Your task to perform on an android device: toggle location history Image 0: 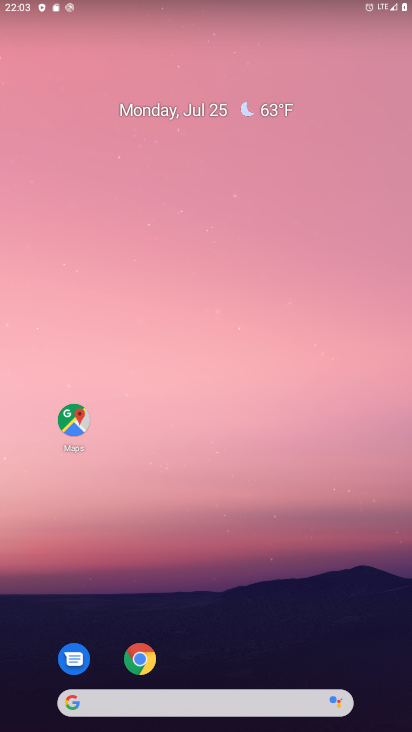
Step 0: drag from (215, 675) to (212, 138)
Your task to perform on an android device: toggle location history Image 1: 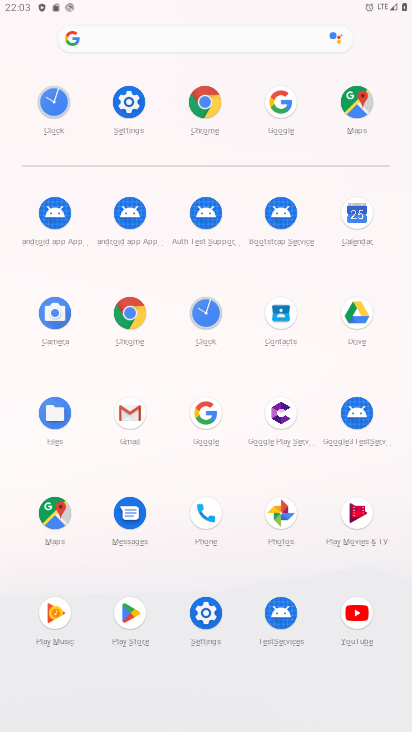
Step 1: click (130, 101)
Your task to perform on an android device: toggle location history Image 2: 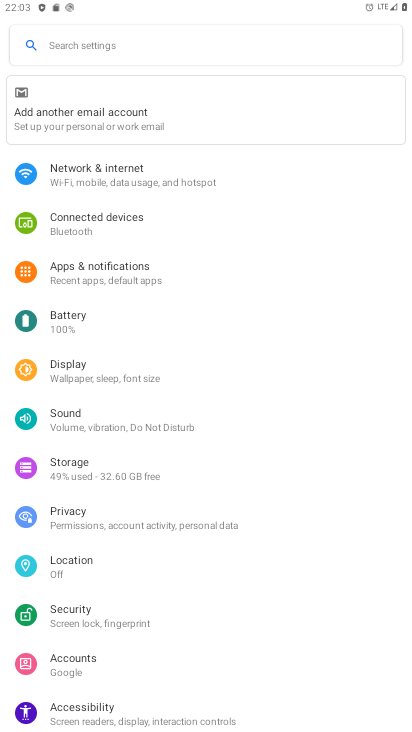
Step 2: click (77, 563)
Your task to perform on an android device: toggle location history Image 3: 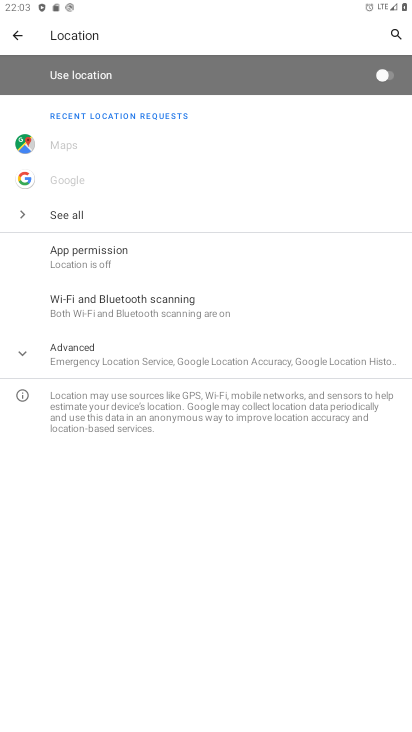
Step 3: click (146, 357)
Your task to perform on an android device: toggle location history Image 4: 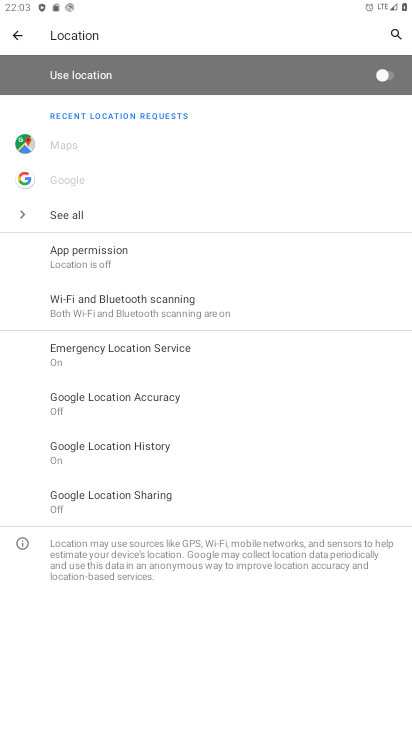
Step 4: click (150, 442)
Your task to perform on an android device: toggle location history Image 5: 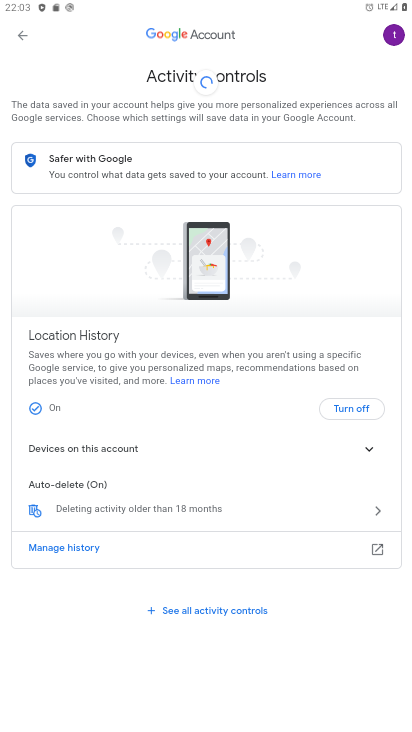
Step 5: click (341, 407)
Your task to perform on an android device: toggle location history Image 6: 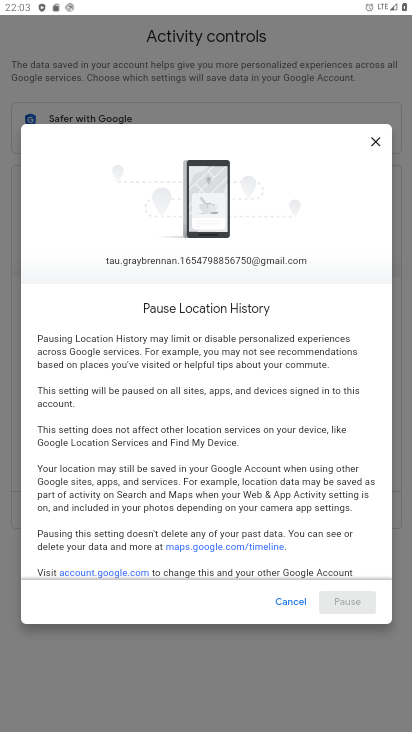
Step 6: drag from (321, 554) to (324, 262)
Your task to perform on an android device: toggle location history Image 7: 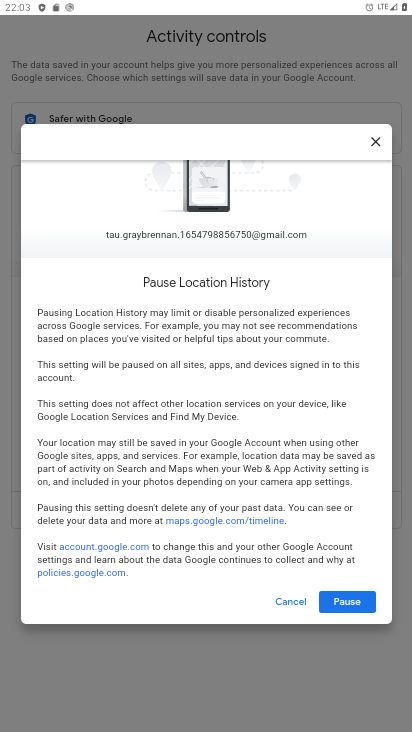
Step 7: click (337, 607)
Your task to perform on an android device: toggle location history Image 8: 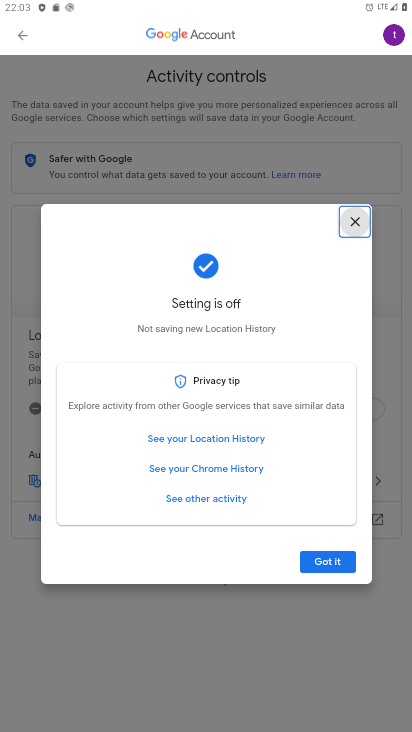
Step 8: click (330, 551)
Your task to perform on an android device: toggle location history Image 9: 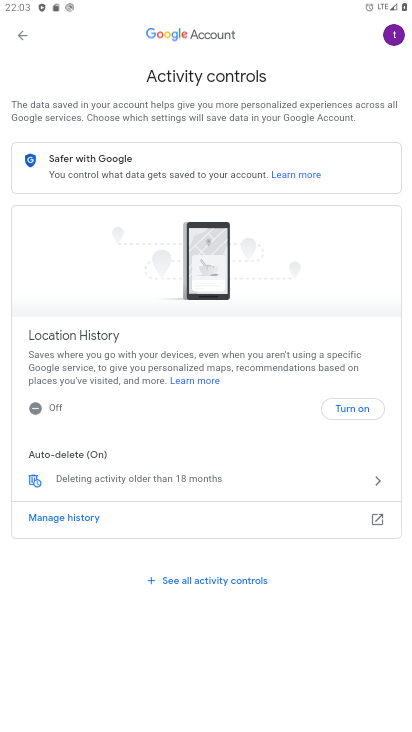
Step 9: task complete